Your task to perform on an android device: uninstall "Flipkart Online Shopping App" Image 0: 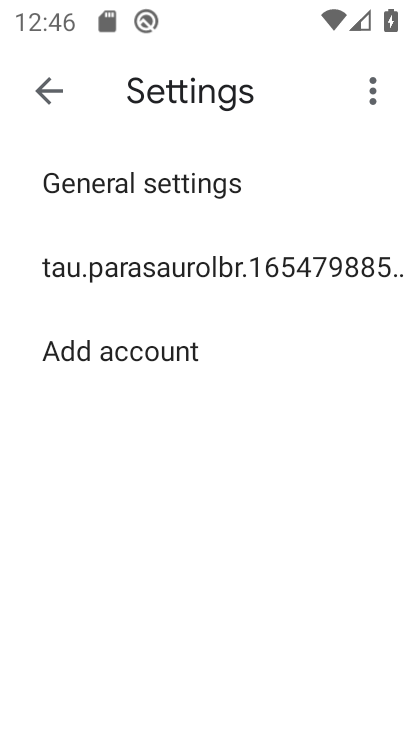
Step 0: click (30, 69)
Your task to perform on an android device: uninstall "Flipkart Online Shopping App" Image 1: 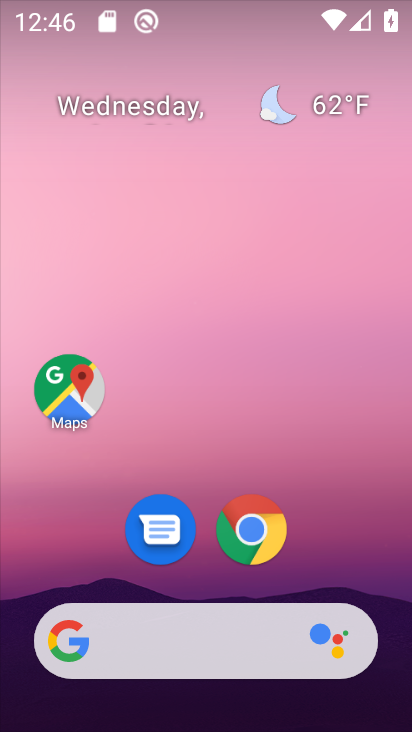
Step 1: drag from (202, 585) to (209, 204)
Your task to perform on an android device: uninstall "Flipkart Online Shopping App" Image 2: 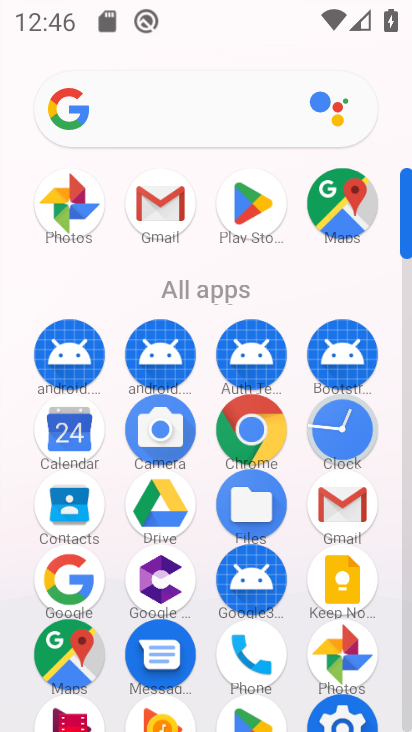
Step 2: click (228, 207)
Your task to perform on an android device: uninstall "Flipkart Online Shopping App" Image 3: 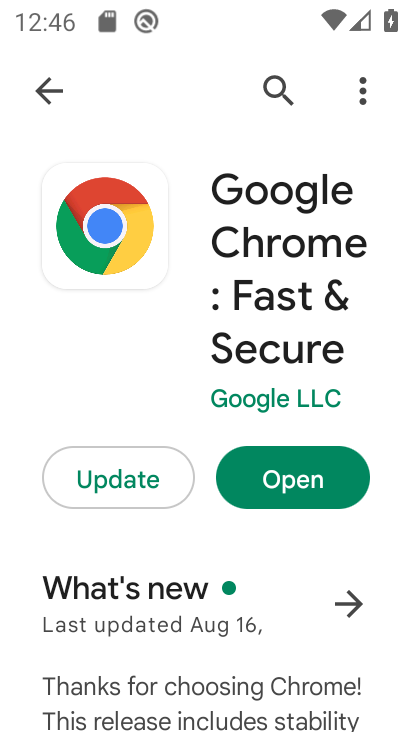
Step 3: click (48, 76)
Your task to perform on an android device: uninstall "Flipkart Online Shopping App" Image 4: 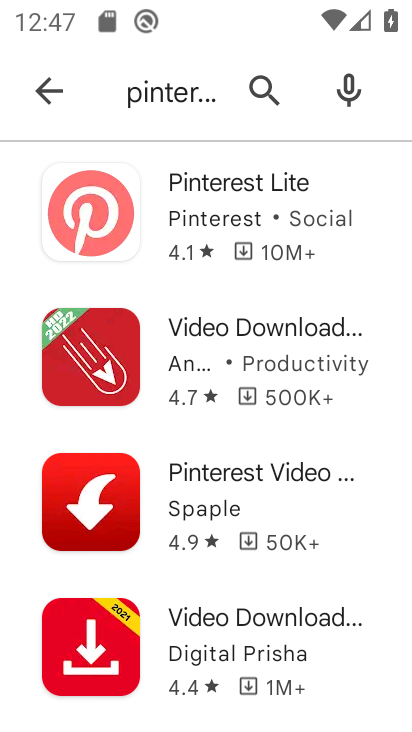
Step 4: click (49, 116)
Your task to perform on an android device: uninstall "Flipkart Online Shopping App" Image 5: 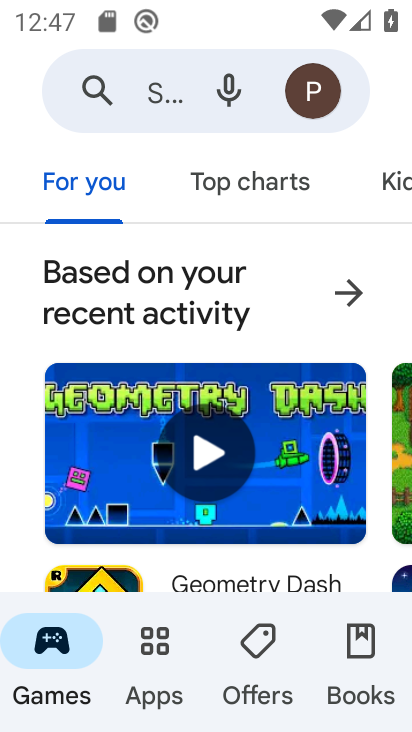
Step 5: click (154, 88)
Your task to perform on an android device: uninstall "Flipkart Online Shopping App" Image 6: 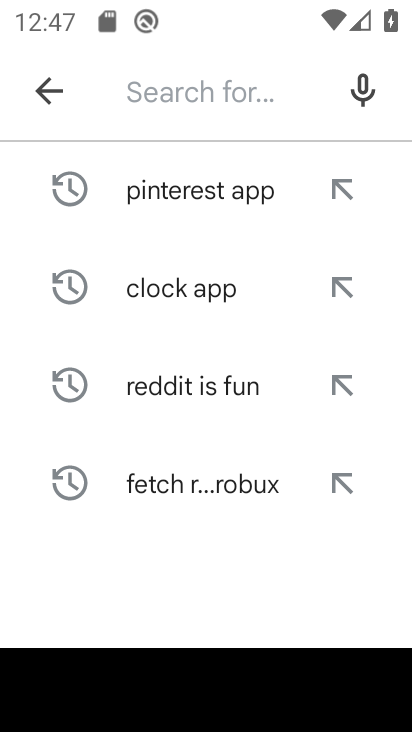
Step 6: type "Flipkart Online Shopping App "
Your task to perform on an android device: uninstall "Flipkart Online Shopping App" Image 7: 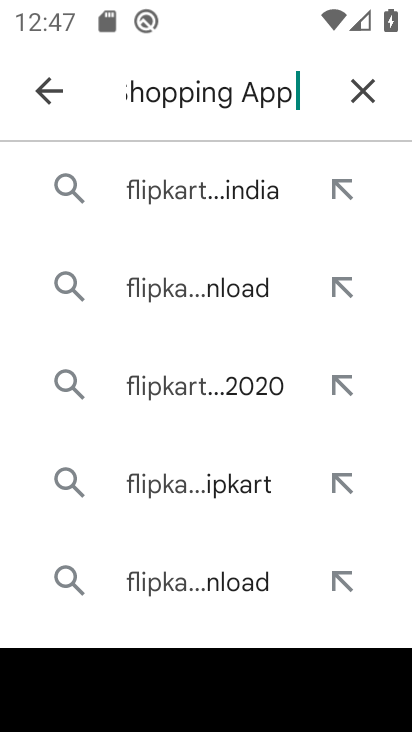
Step 7: click (174, 187)
Your task to perform on an android device: uninstall "Flipkart Online Shopping App" Image 8: 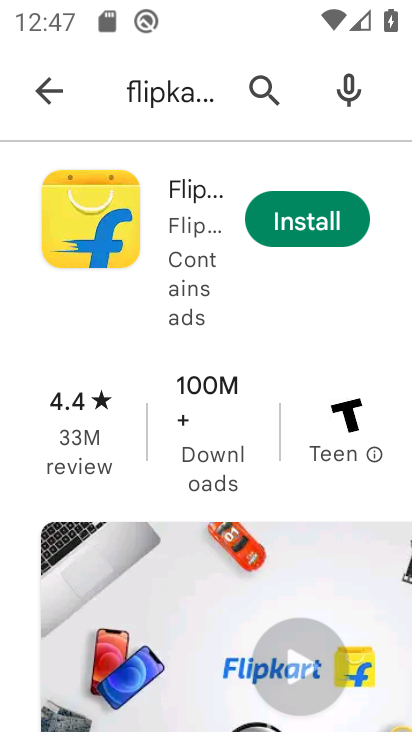
Step 8: click (106, 196)
Your task to perform on an android device: uninstall "Flipkart Online Shopping App" Image 9: 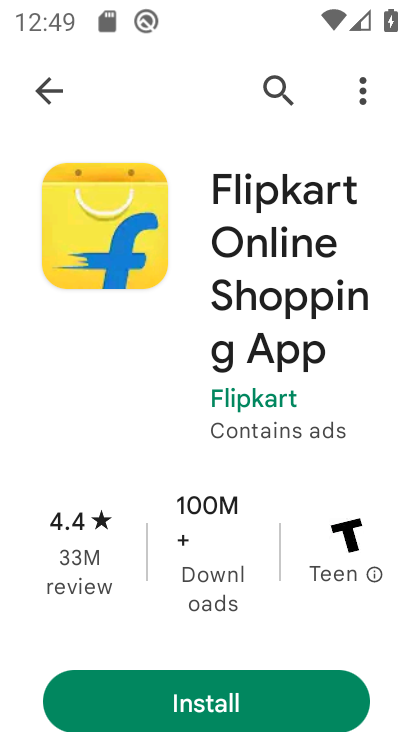
Step 9: task complete